Your task to perform on an android device: delete a single message in the gmail app Image 0: 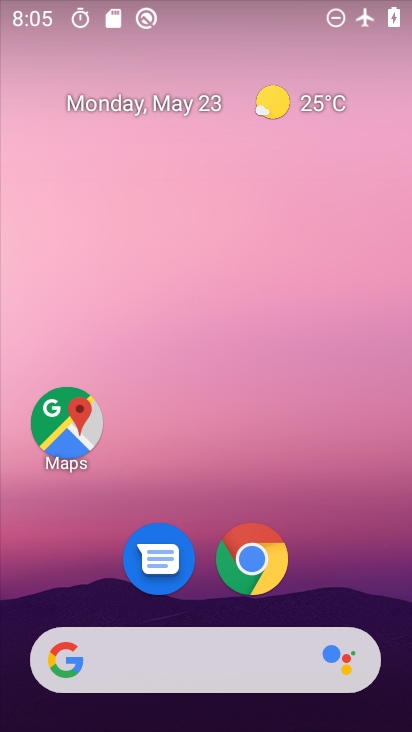
Step 0: drag from (384, 627) to (262, 37)
Your task to perform on an android device: delete a single message in the gmail app Image 1: 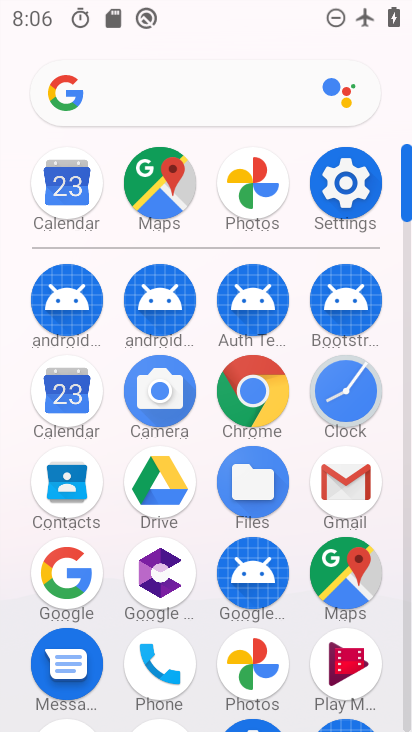
Step 1: click (326, 485)
Your task to perform on an android device: delete a single message in the gmail app Image 2: 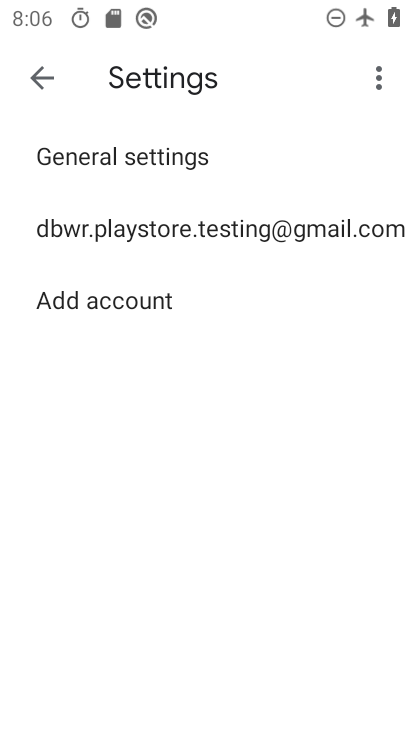
Step 2: task complete